Your task to perform on an android device: Open Maps and search for coffee Image 0: 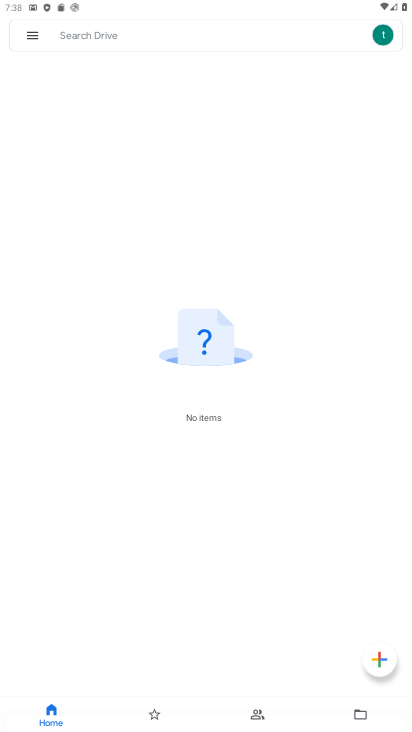
Step 0: press home button
Your task to perform on an android device: Open Maps and search for coffee Image 1: 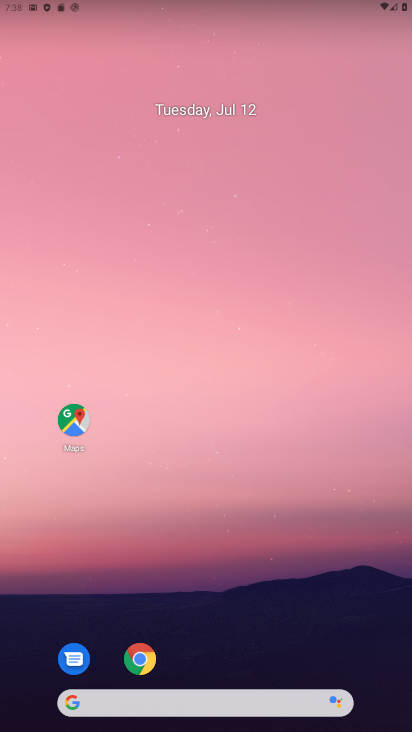
Step 1: click (68, 421)
Your task to perform on an android device: Open Maps and search for coffee Image 2: 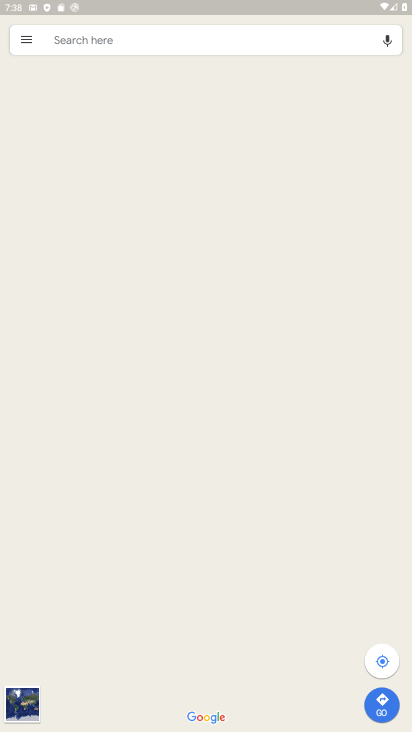
Step 2: click (171, 38)
Your task to perform on an android device: Open Maps and search for coffee Image 3: 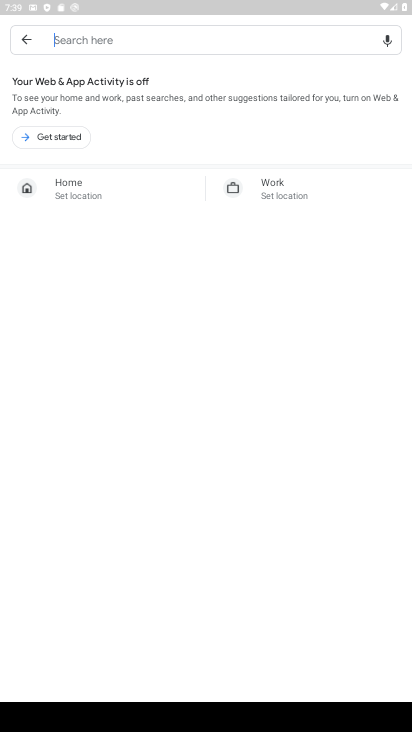
Step 3: click (43, 135)
Your task to perform on an android device: Open Maps and search for coffee Image 4: 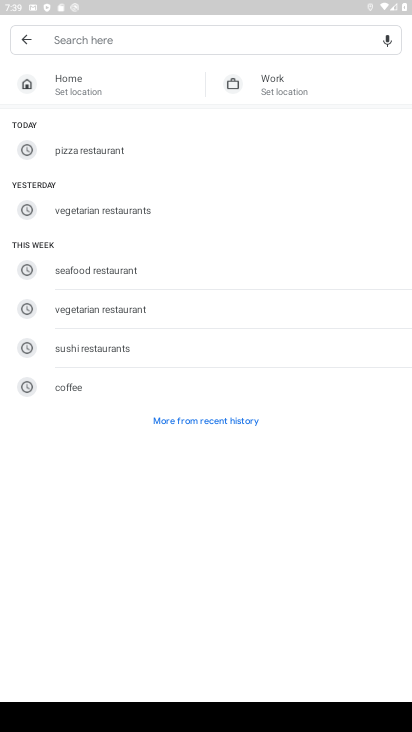
Step 4: click (97, 393)
Your task to perform on an android device: Open Maps and search for coffee Image 5: 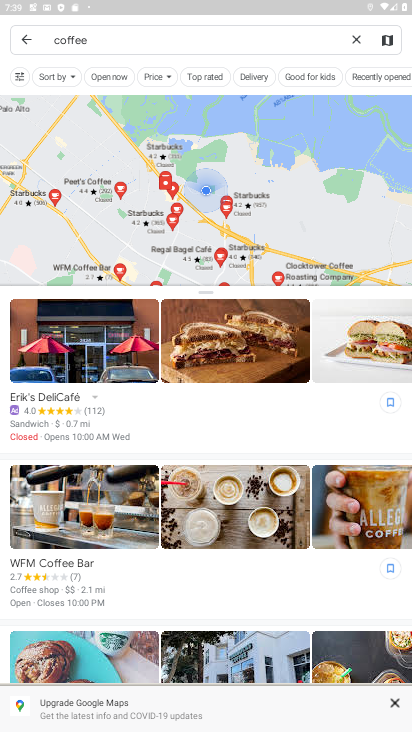
Step 5: task complete